Your task to perform on an android device: turn pop-ups on in chrome Image 0: 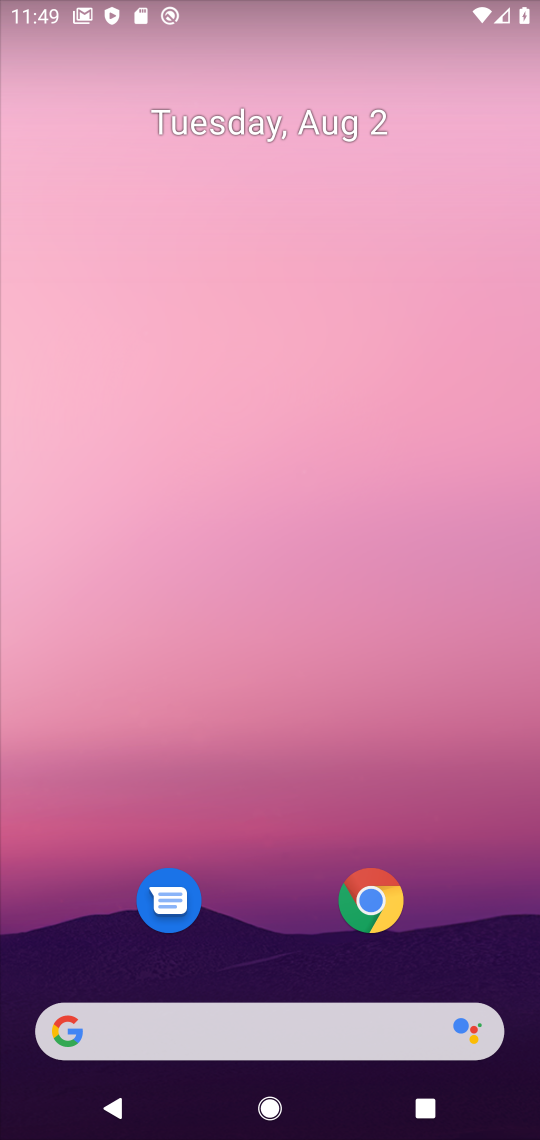
Step 0: drag from (286, 892) to (261, 33)
Your task to perform on an android device: turn pop-ups on in chrome Image 1: 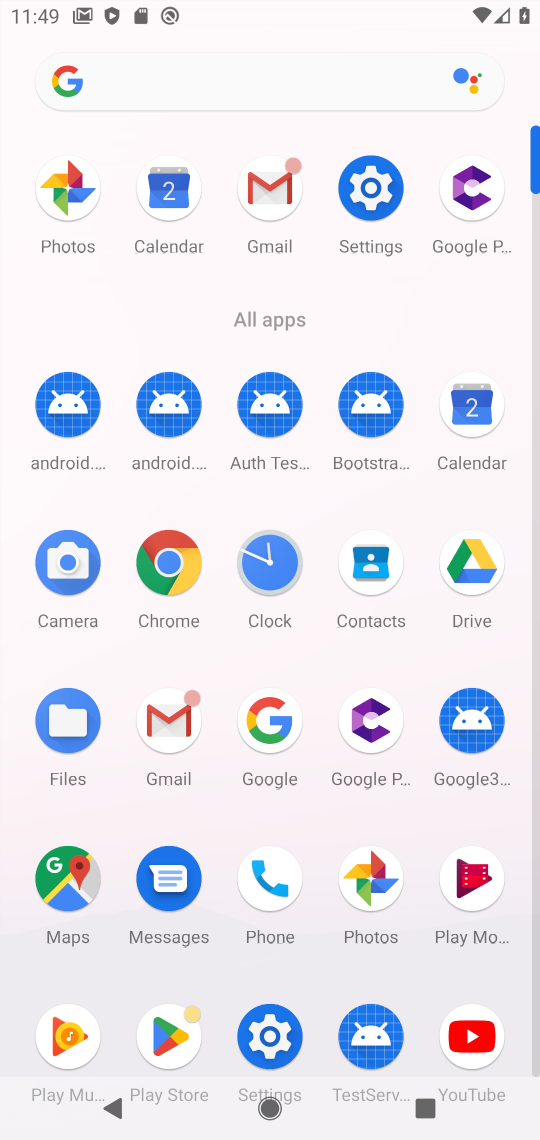
Step 1: click (166, 563)
Your task to perform on an android device: turn pop-ups on in chrome Image 2: 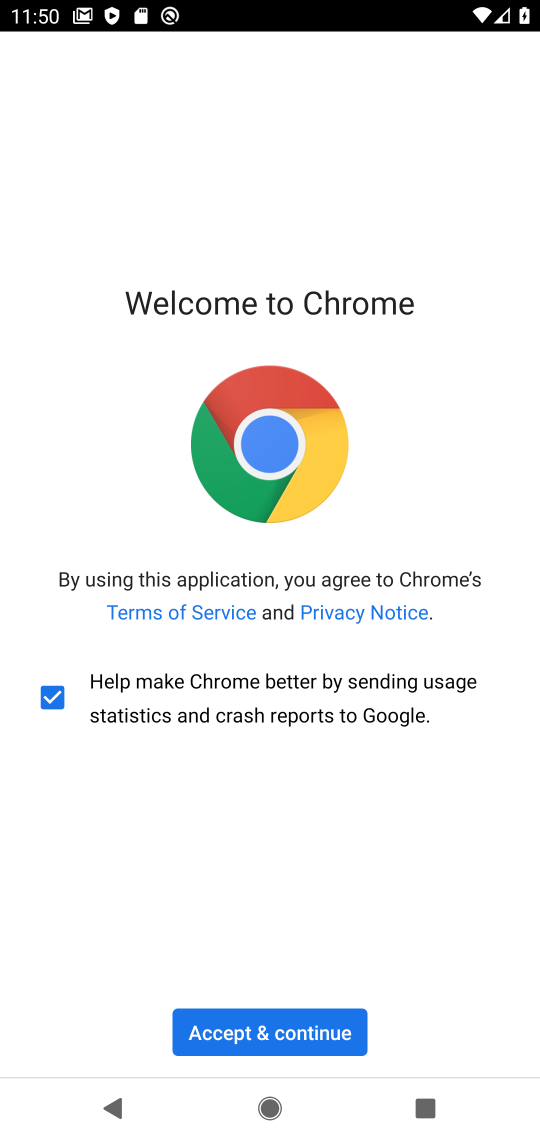
Step 2: click (269, 1037)
Your task to perform on an android device: turn pop-ups on in chrome Image 3: 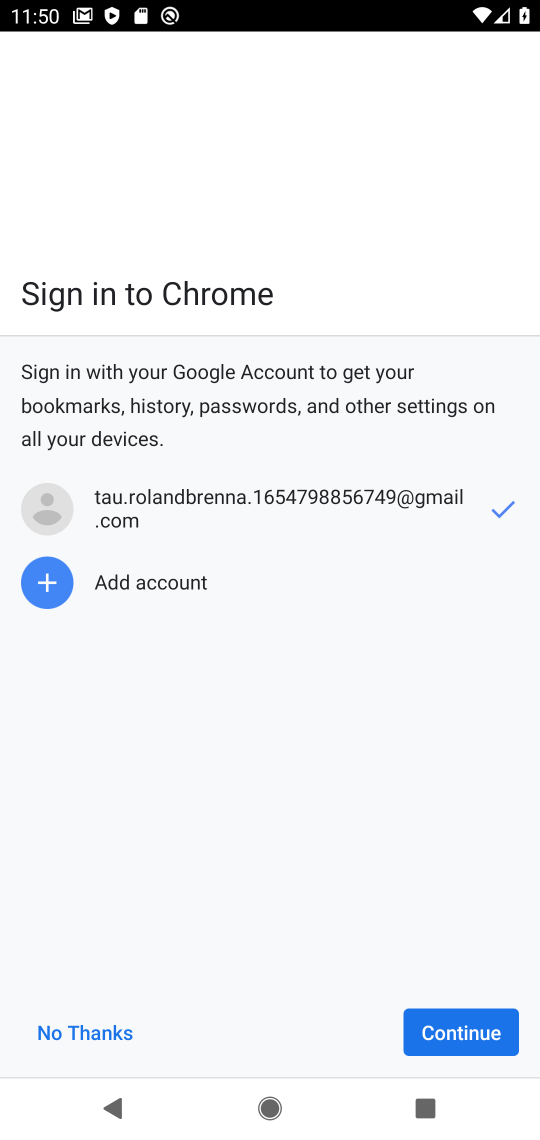
Step 3: click (439, 1033)
Your task to perform on an android device: turn pop-ups on in chrome Image 4: 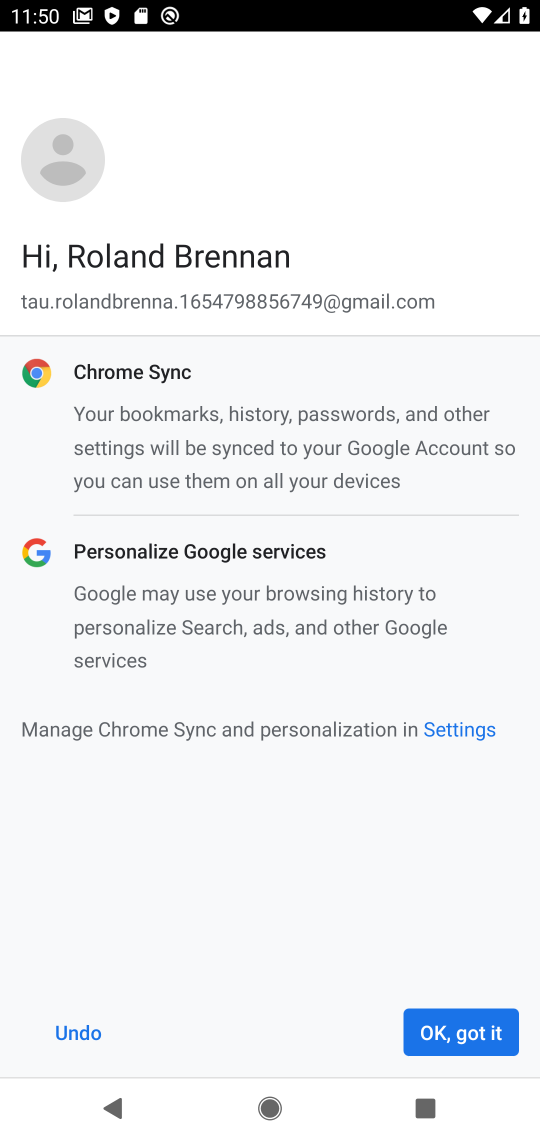
Step 4: click (449, 1052)
Your task to perform on an android device: turn pop-ups on in chrome Image 5: 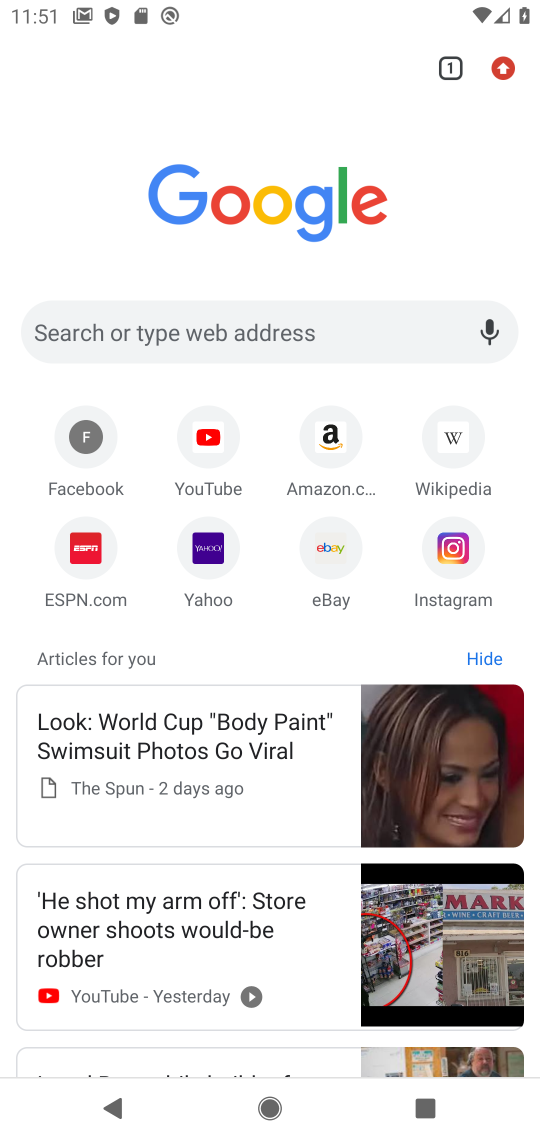
Step 5: drag from (534, 49) to (289, 654)
Your task to perform on an android device: turn pop-ups on in chrome Image 6: 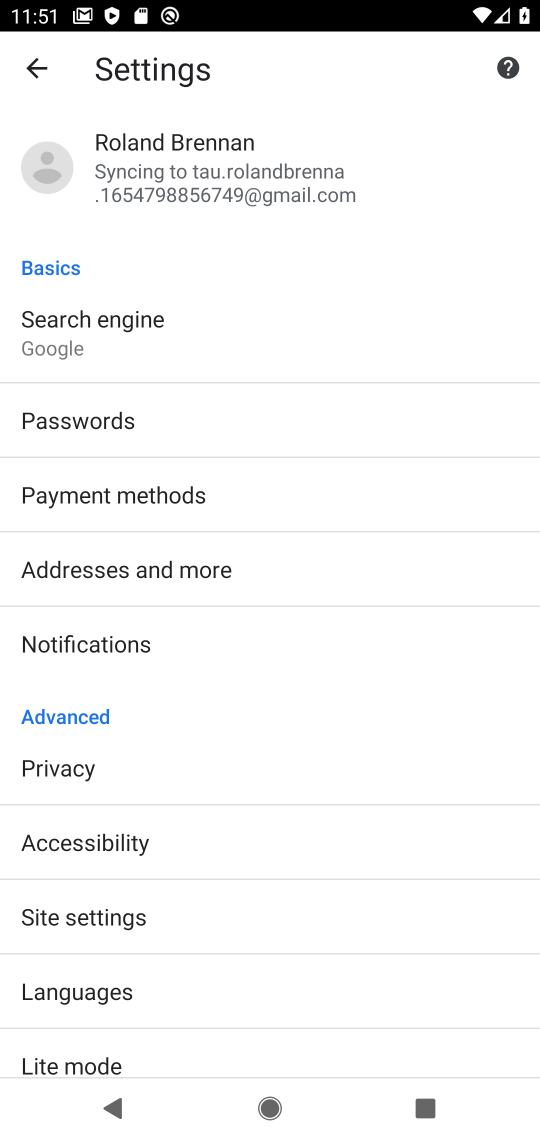
Step 6: drag from (319, 930) to (354, 313)
Your task to perform on an android device: turn pop-ups on in chrome Image 7: 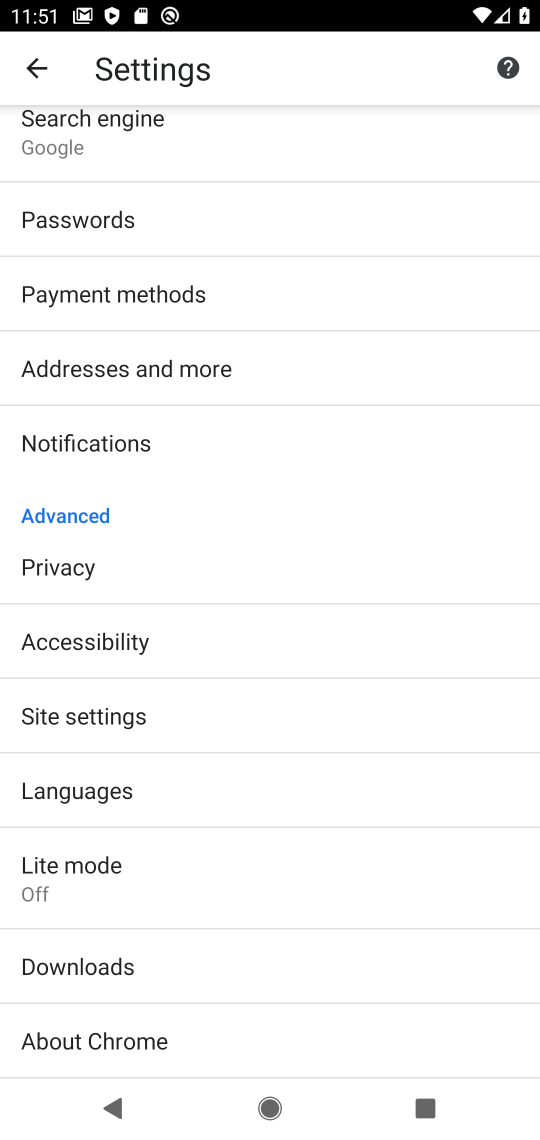
Step 7: click (103, 731)
Your task to perform on an android device: turn pop-ups on in chrome Image 8: 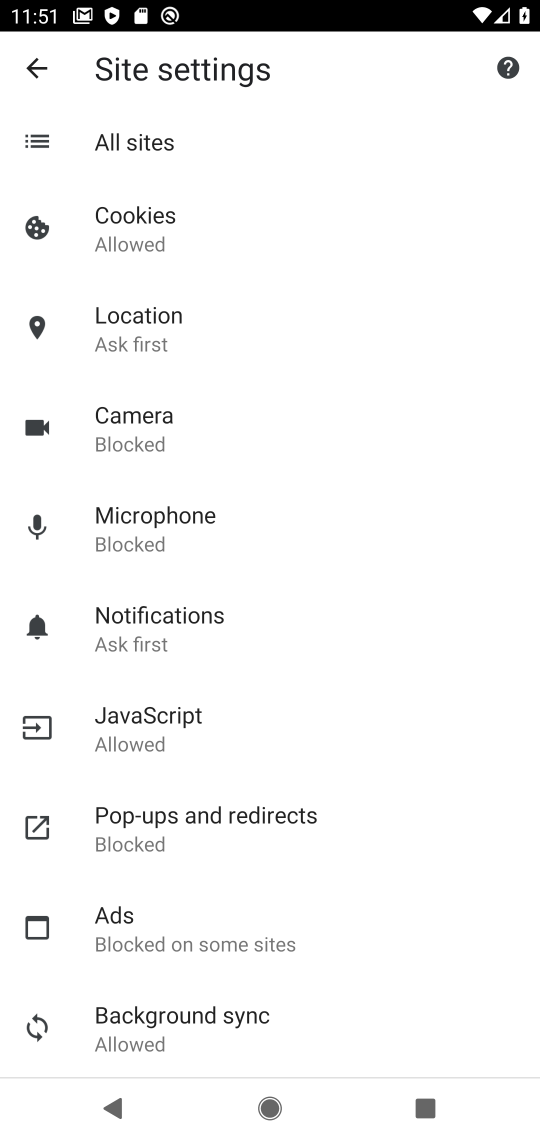
Step 8: click (215, 812)
Your task to perform on an android device: turn pop-ups on in chrome Image 9: 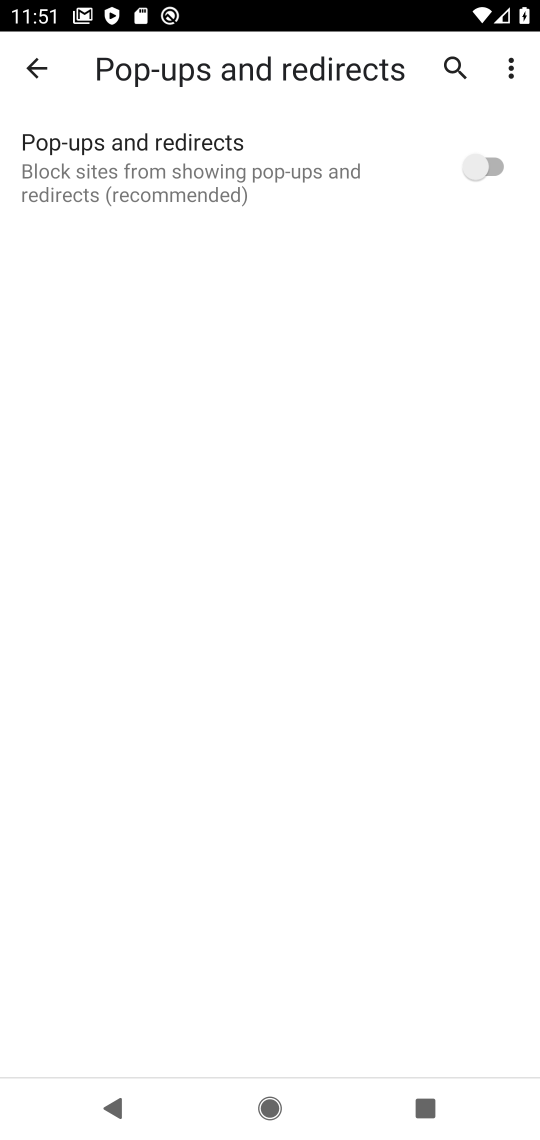
Step 9: click (458, 172)
Your task to perform on an android device: turn pop-ups on in chrome Image 10: 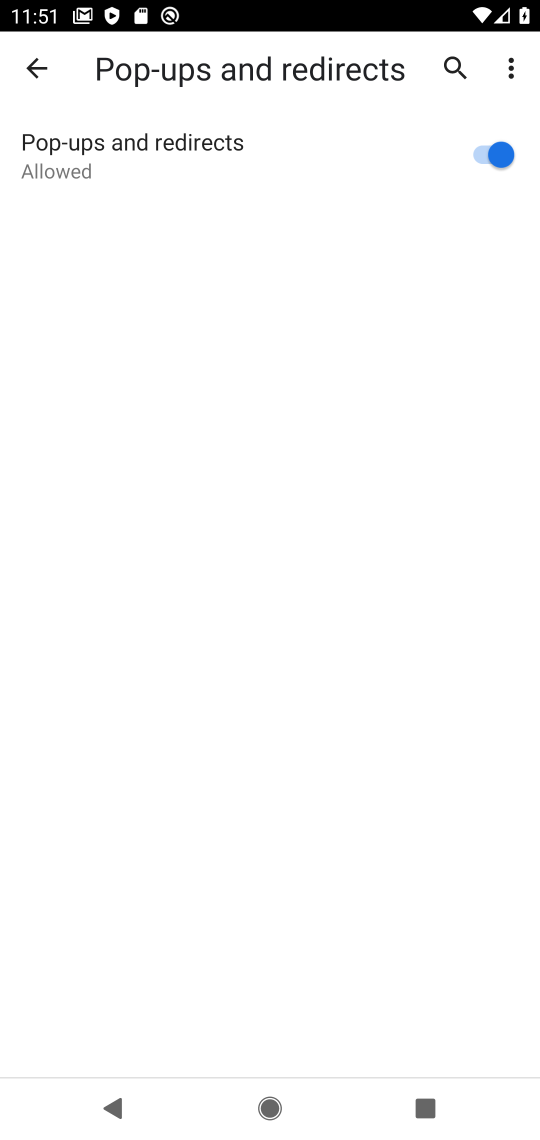
Step 10: task complete